Your task to perform on an android device: Open Google Image 0: 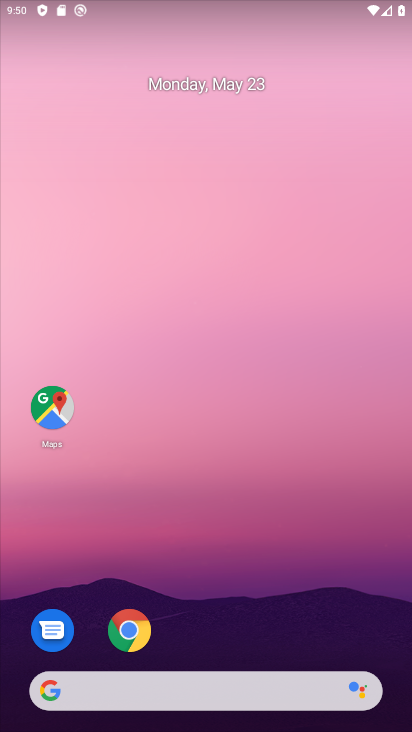
Step 0: drag from (311, 493) to (315, 6)
Your task to perform on an android device: Open Google Image 1: 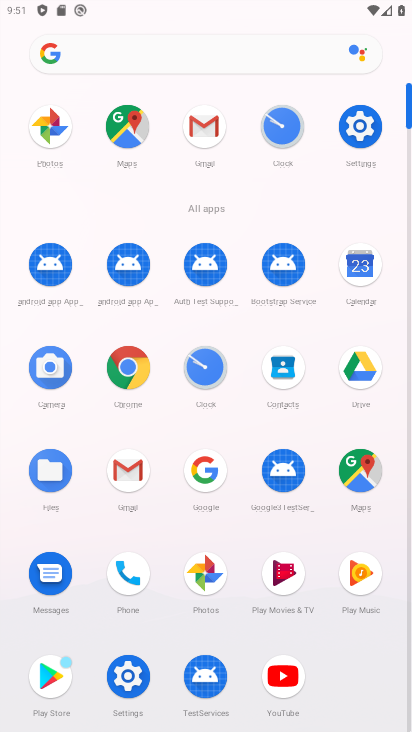
Step 1: click (203, 467)
Your task to perform on an android device: Open Google Image 2: 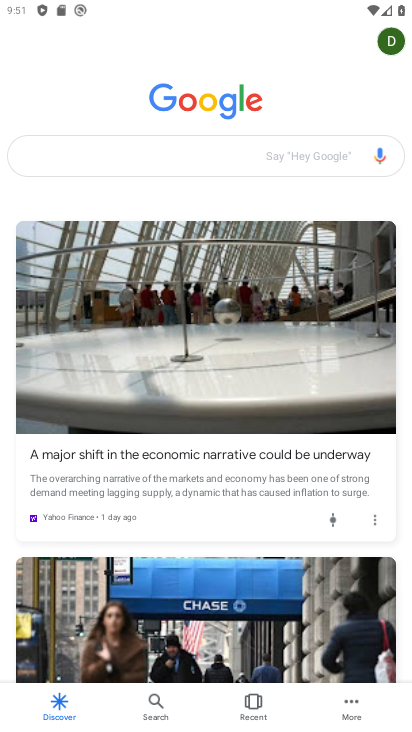
Step 2: task complete